Your task to perform on an android device: Go to privacy settings Image 0: 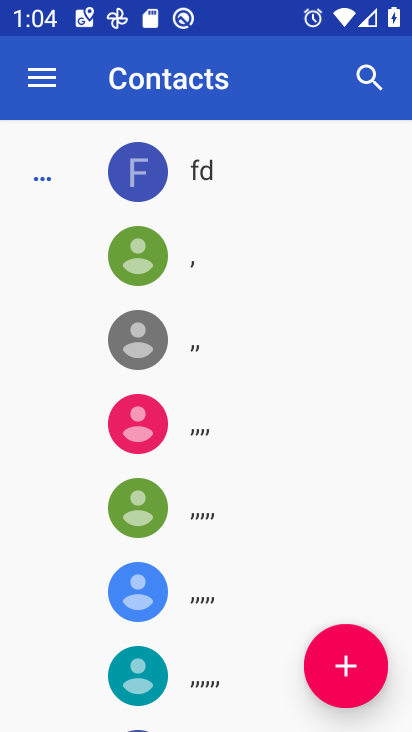
Step 0: press home button
Your task to perform on an android device: Go to privacy settings Image 1: 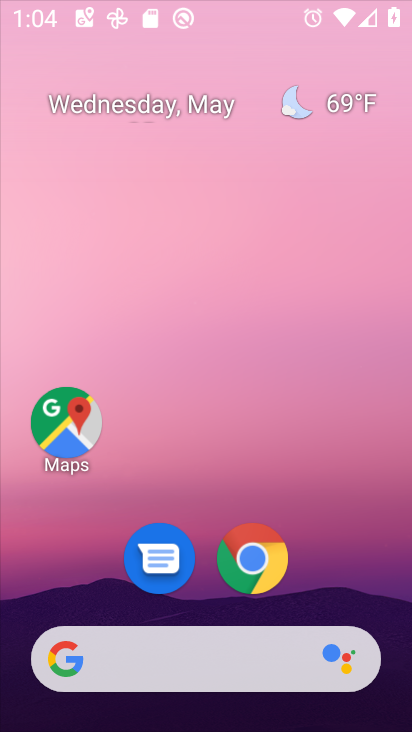
Step 1: drag from (403, 653) to (233, 48)
Your task to perform on an android device: Go to privacy settings Image 2: 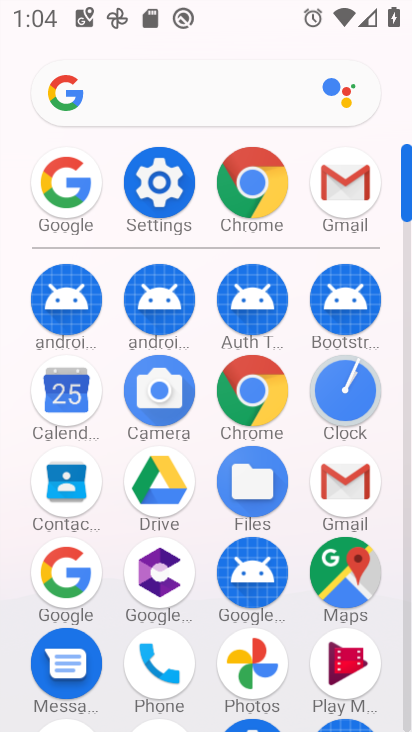
Step 2: click (167, 170)
Your task to perform on an android device: Go to privacy settings Image 3: 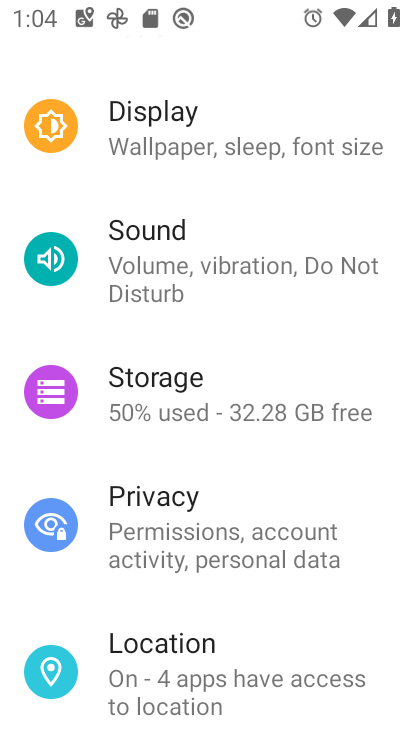
Step 3: click (201, 538)
Your task to perform on an android device: Go to privacy settings Image 4: 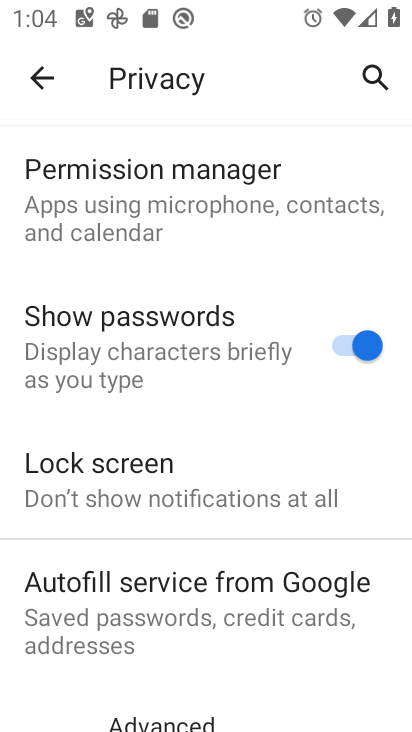
Step 4: task complete